Your task to perform on an android device: Go to eBay Image 0: 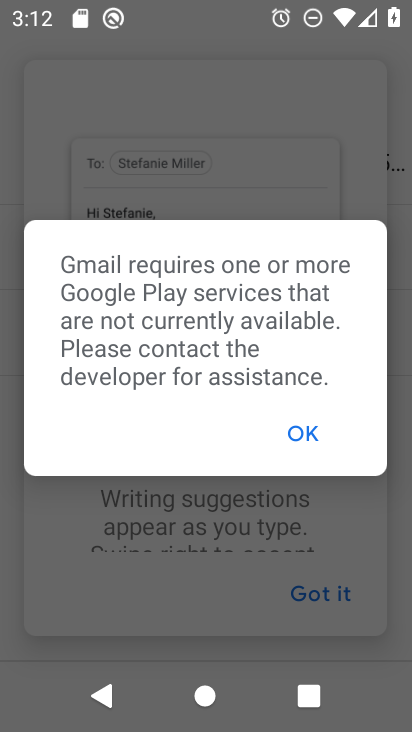
Step 0: press home button
Your task to perform on an android device: Go to eBay Image 1: 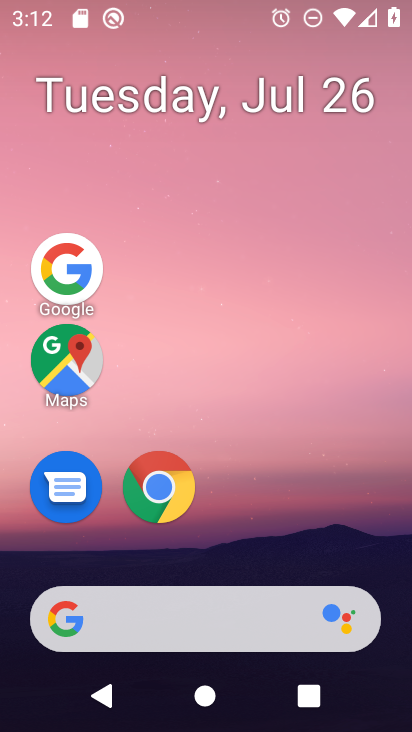
Step 1: drag from (266, 643) to (286, 129)
Your task to perform on an android device: Go to eBay Image 2: 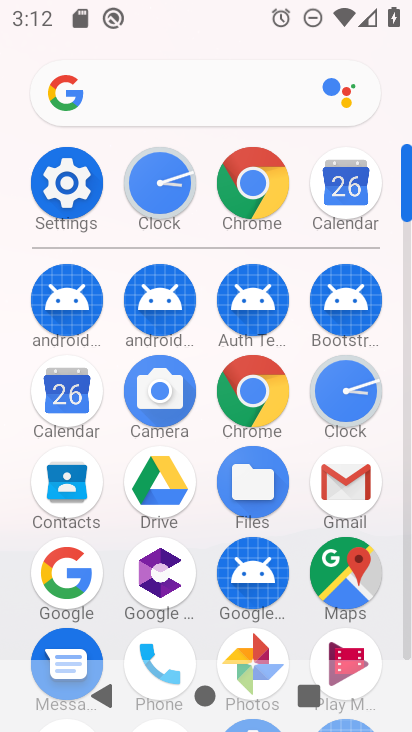
Step 2: drag from (235, 439) to (270, 67)
Your task to perform on an android device: Go to eBay Image 3: 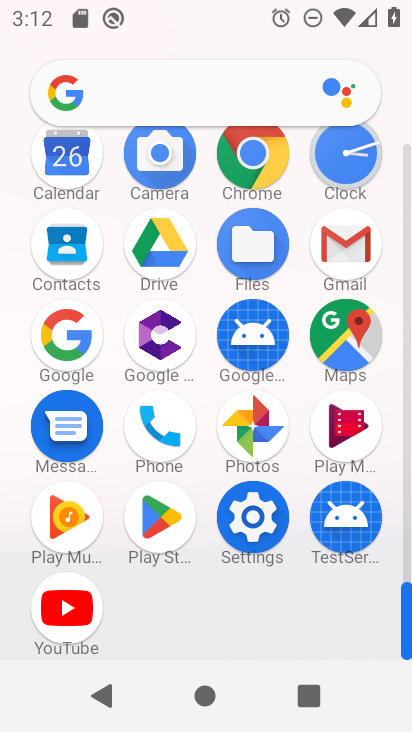
Step 3: click (276, 174)
Your task to perform on an android device: Go to eBay Image 4: 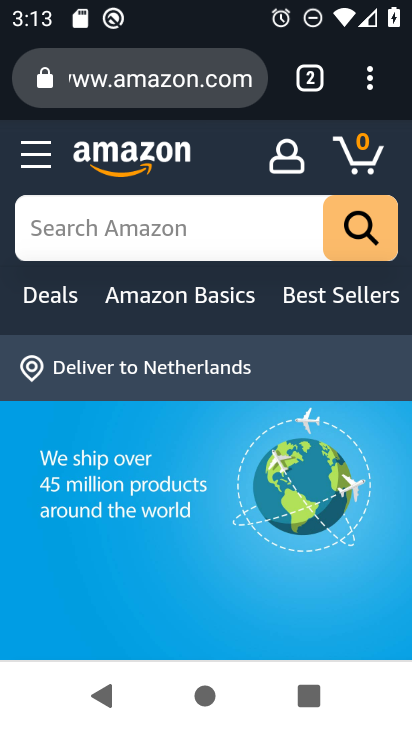
Step 4: click (234, 88)
Your task to perform on an android device: Go to eBay Image 5: 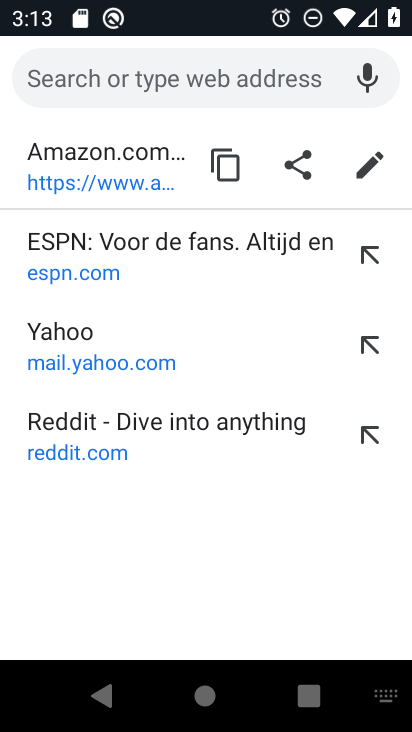
Step 5: type "ebay"
Your task to perform on an android device: Go to eBay Image 6: 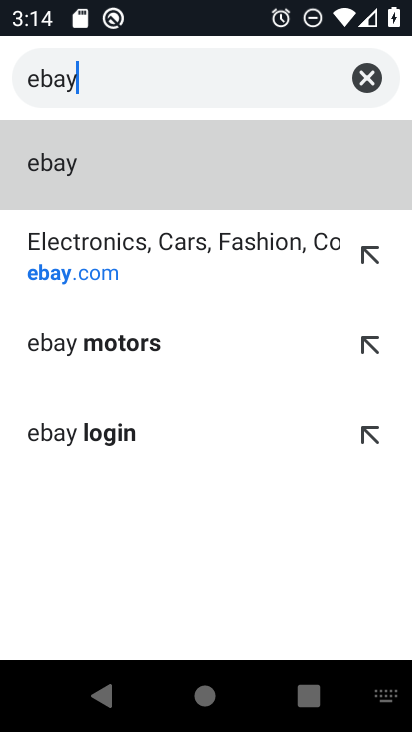
Step 6: click (163, 285)
Your task to perform on an android device: Go to eBay Image 7: 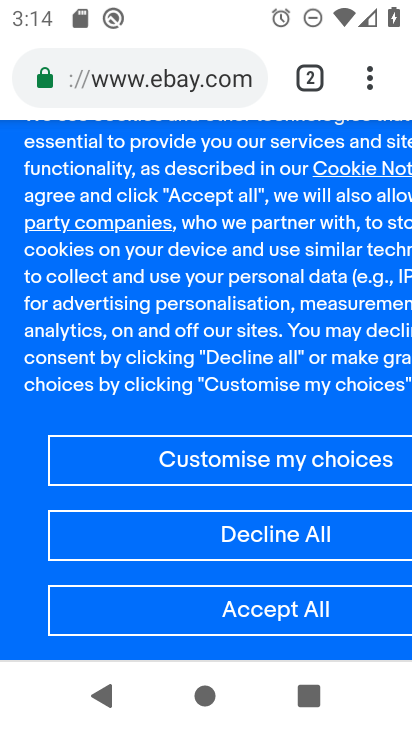
Step 7: task complete